Your task to perform on an android device: install app "Google Chrome" Image 0: 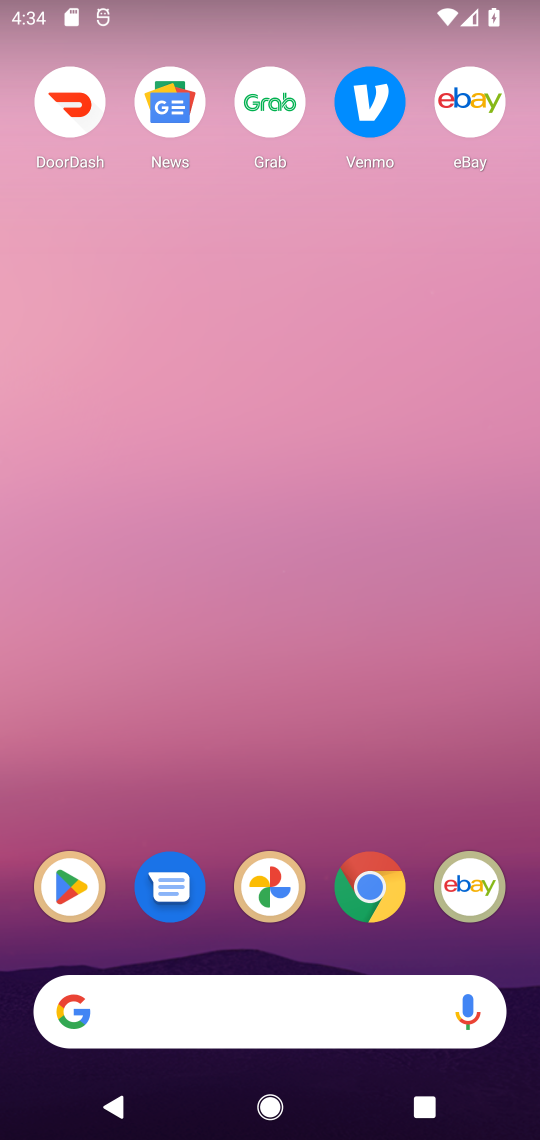
Step 0: click (369, 893)
Your task to perform on an android device: install app "Google Chrome" Image 1: 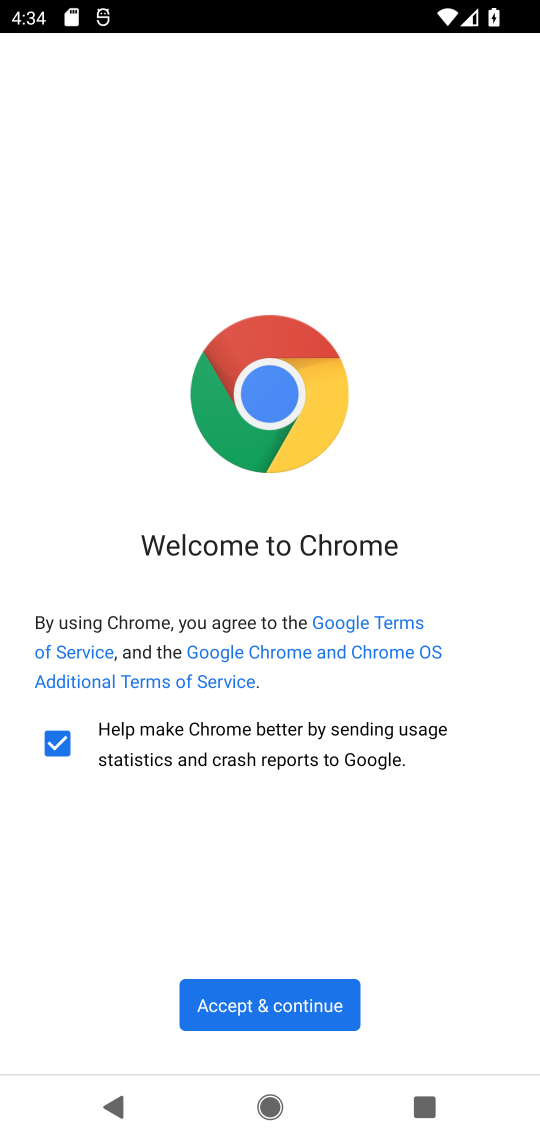
Step 1: click (266, 1001)
Your task to perform on an android device: install app "Google Chrome" Image 2: 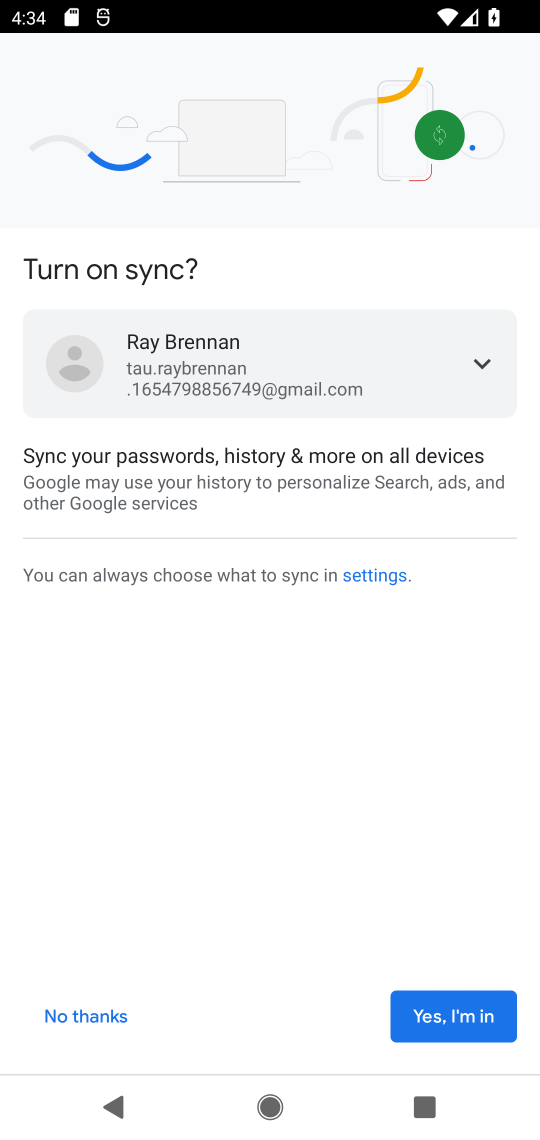
Step 2: task complete